Your task to perform on an android device: show emergency info Image 0: 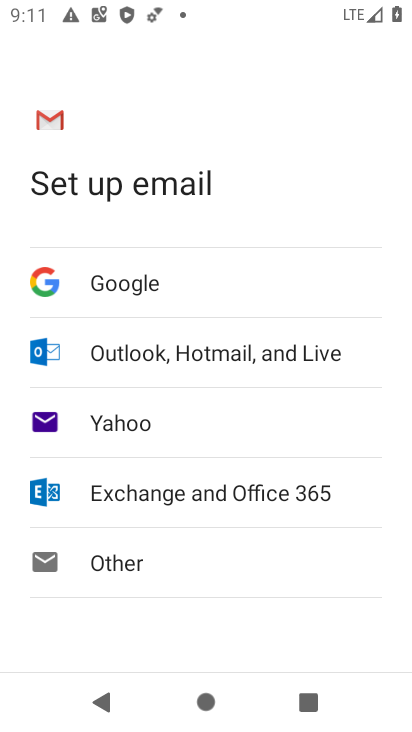
Step 0: drag from (295, 7) to (237, 440)
Your task to perform on an android device: show emergency info Image 1: 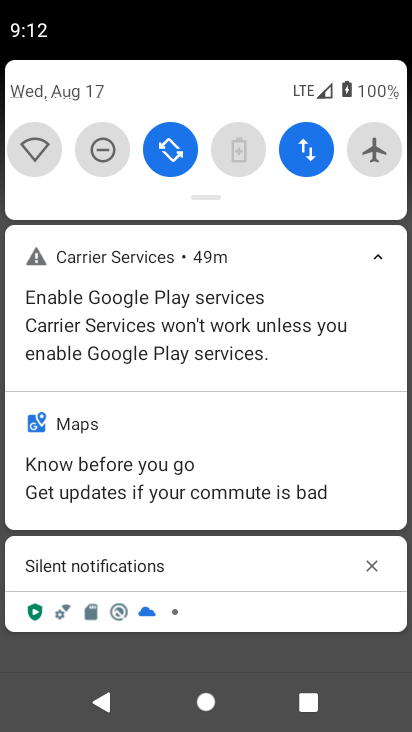
Step 1: press home button
Your task to perform on an android device: show emergency info Image 2: 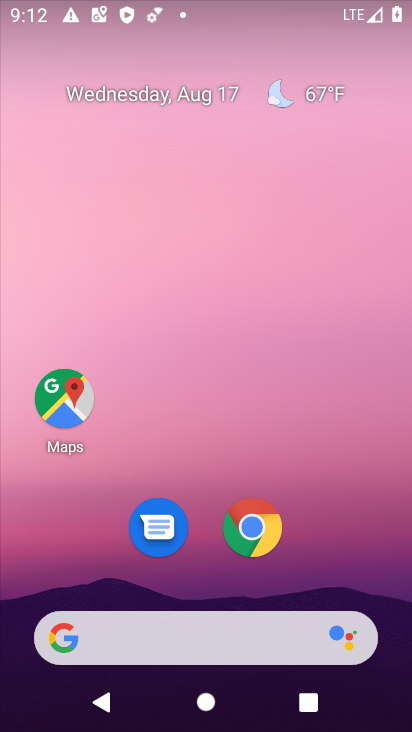
Step 2: drag from (216, 584) to (6, 126)
Your task to perform on an android device: show emergency info Image 3: 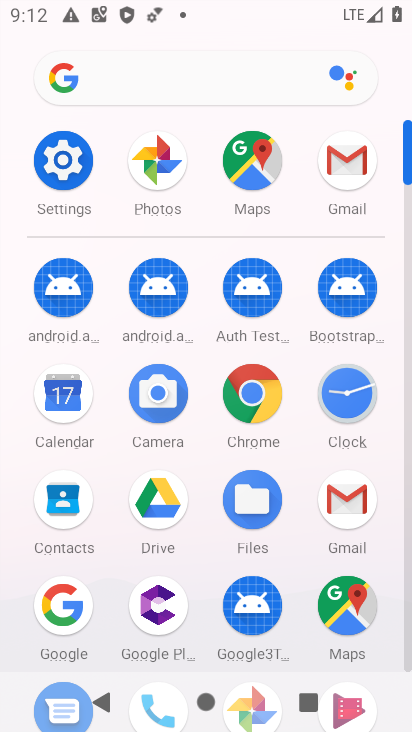
Step 3: click (52, 153)
Your task to perform on an android device: show emergency info Image 4: 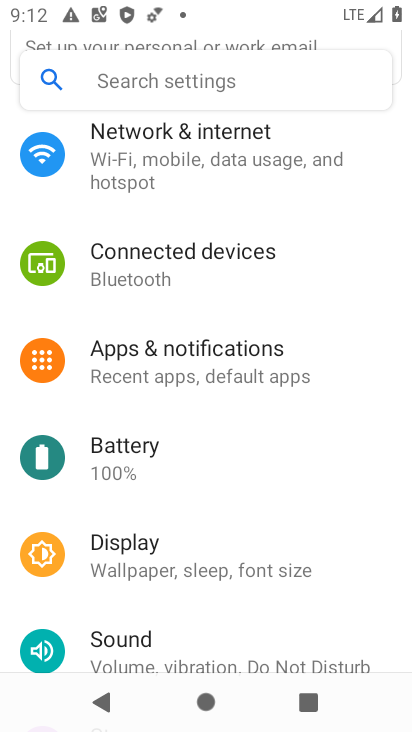
Step 4: drag from (165, 604) to (234, 274)
Your task to perform on an android device: show emergency info Image 5: 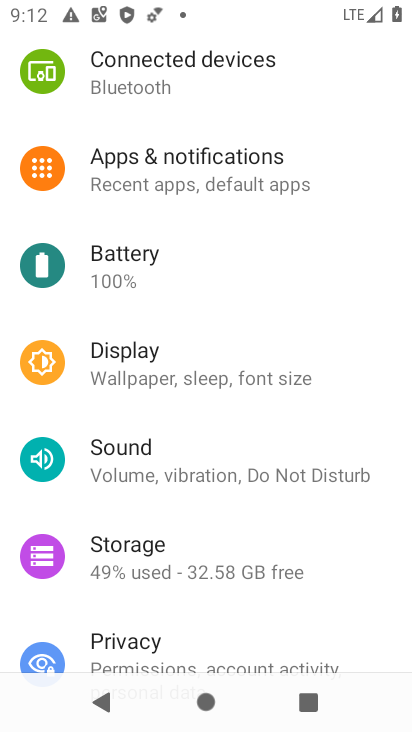
Step 5: drag from (179, 611) to (283, 257)
Your task to perform on an android device: show emergency info Image 6: 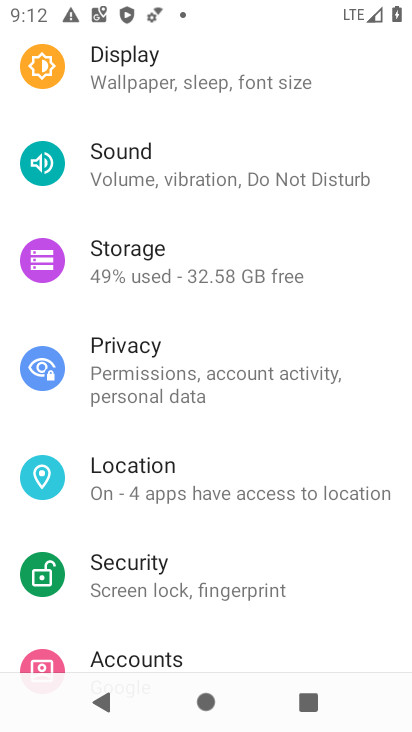
Step 6: drag from (150, 615) to (201, 149)
Your task to perform on an android device: show emergency info Image 7: 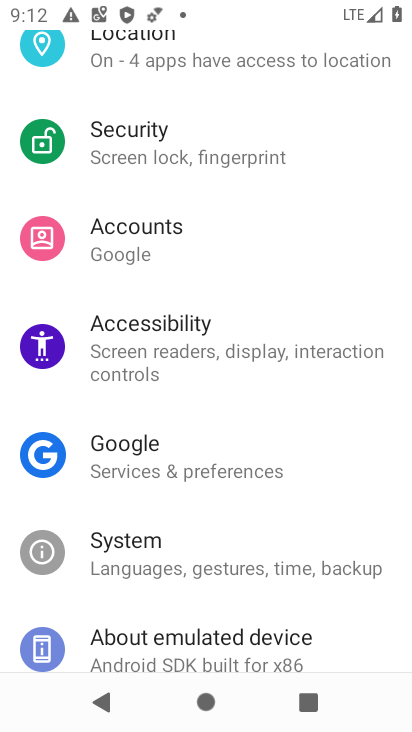
Step 7: drag from (206, 599) to (207, 261)
Your task to perform on an android device: show emergency info Image 8: 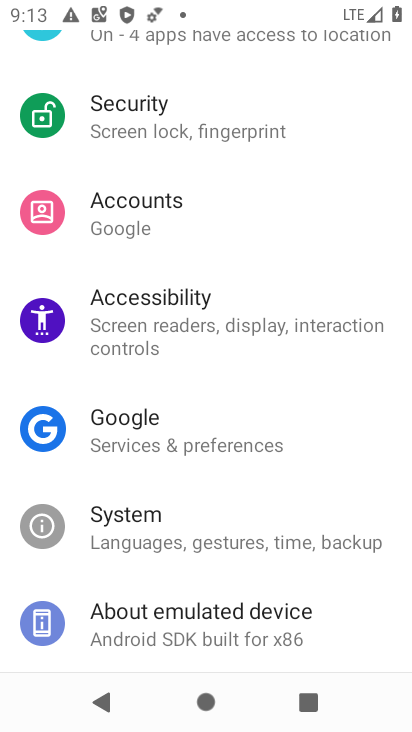
Step 8: drag from (186, 629) to (134, 30)
Your task to perform on an android device: show emergency info Image 9: 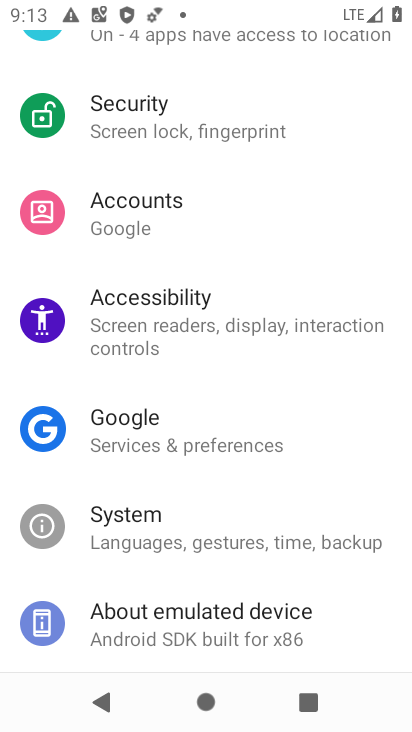
Step 9: click (271, 619)
Your task to perform on an android device: show emergency info Image 10: 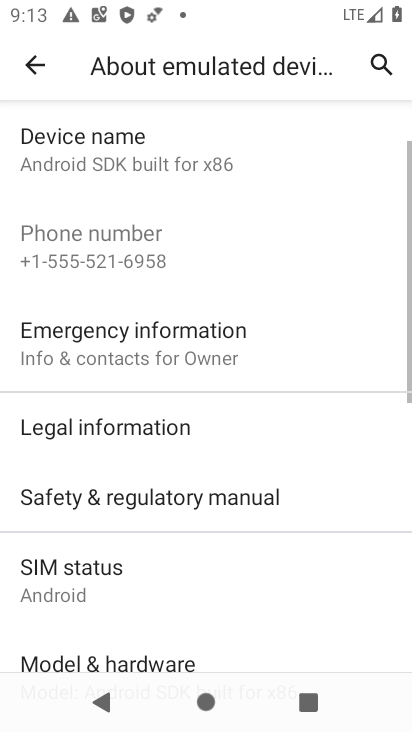
Step 10: click (164, 327)
Your task to perform on an android device: show emergency info Image 11: 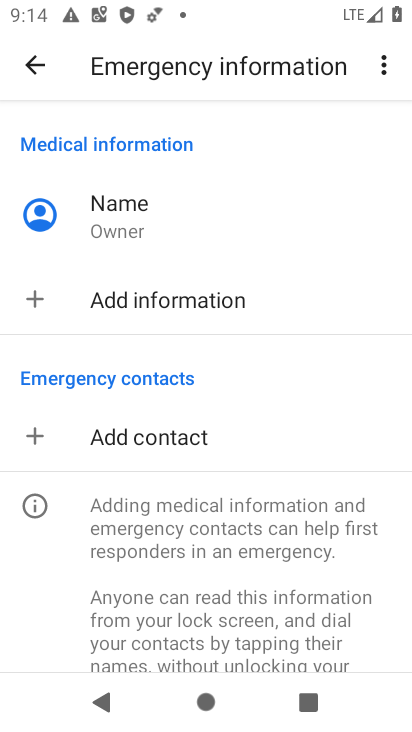
Step 11: task complete